Your task to perform on an android device: open sync settings in chrome Image 0: 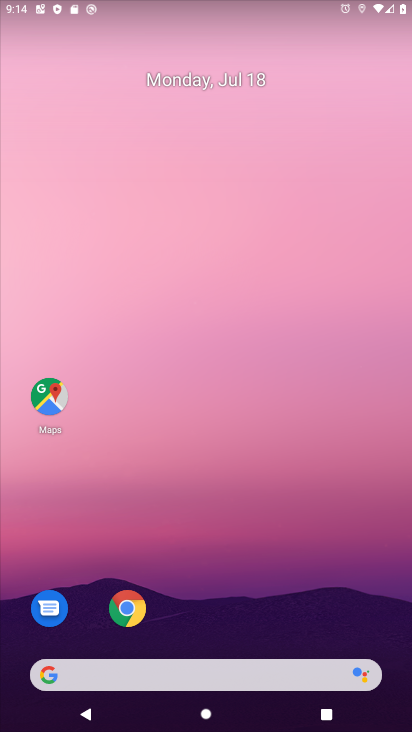
Step 0: click (125, 605)
Your task to perform on an android device: open sync settings in chrome Image 1: 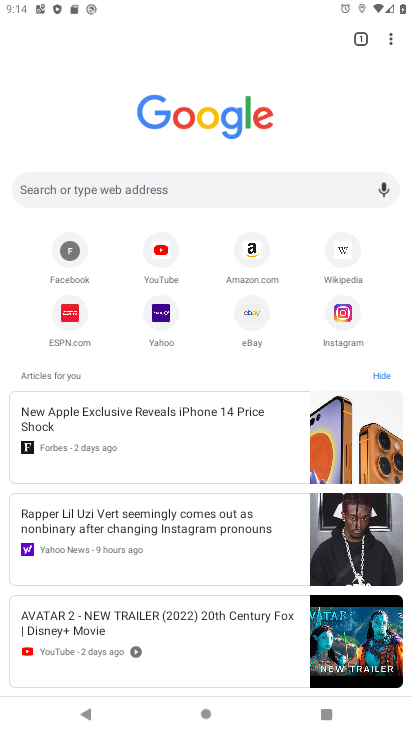
Step 1: click (390, 38)
Your task to perform on an android device: open sync settings in chrome Image 2: 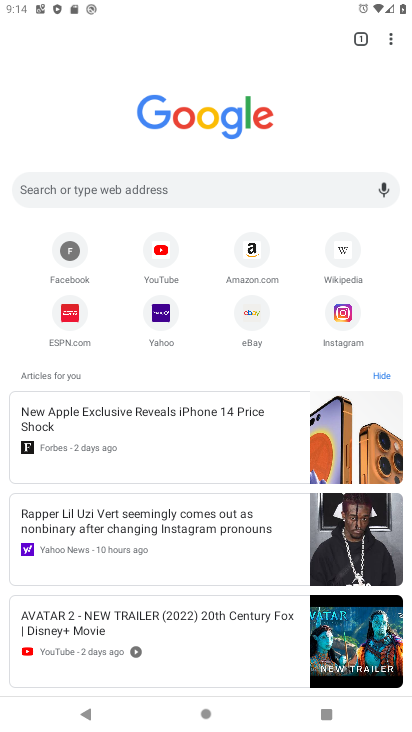
Step 2: click (387, 35)
Your task to perform on an android device: open sync settings in chrome Image 3: 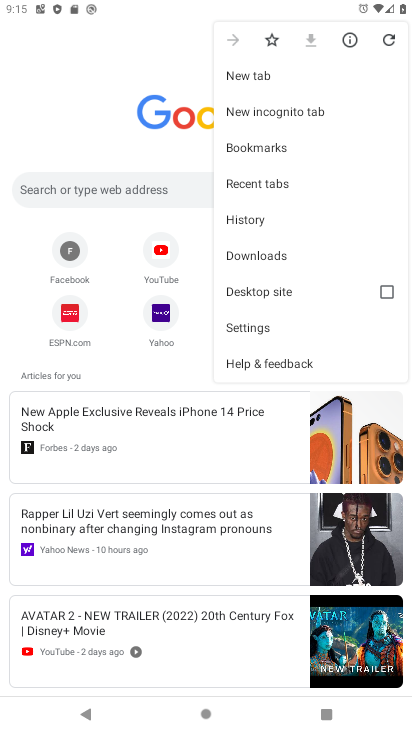
Step 3: click (248, 328)
Your task to perform on an android device: open sync settings in chrome Image 4: 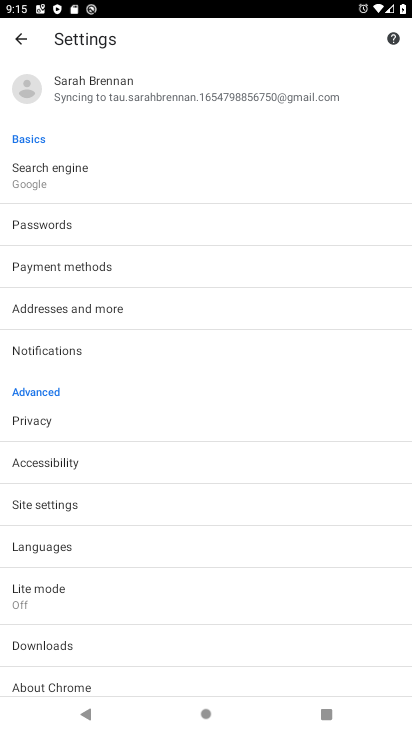
Step 4: click (53, 505)
Your task to perform on an android device: open sync settings in chrome Image 5: 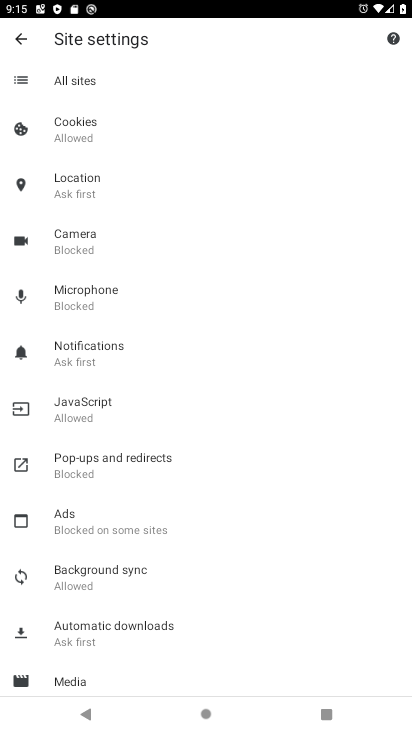
Step 5: drag from (220, 647) to (256, 21)
Your task to perform on an android device: open sync settings in chrome Image 6: 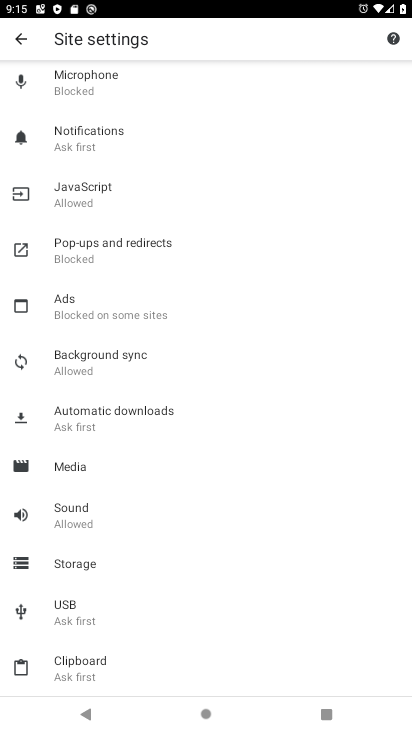
Step 6: drag from (282, 202) to (249, 498)
Your task to perform on an android device: open sync settings in chrome Image 7: 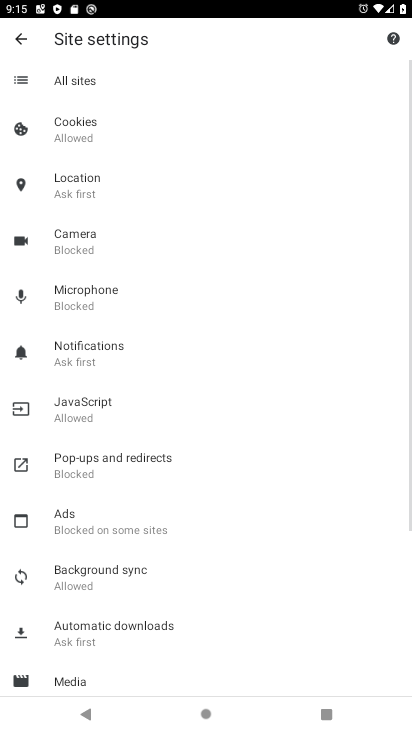
Step 7: drag from (210, 114) to (199, 418)
Your task to perform on an android device: open sync settings in chrome Image 8: 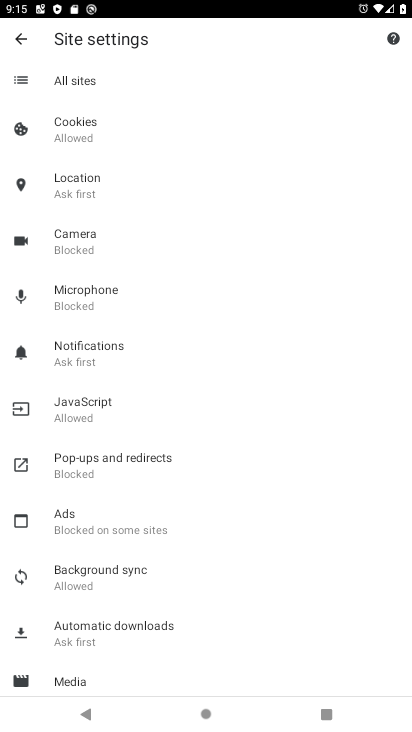
Step 8: drag from (156, 664) to (266, 94)
Your task to perform on an android device: open sync settings in chrome Image 9: 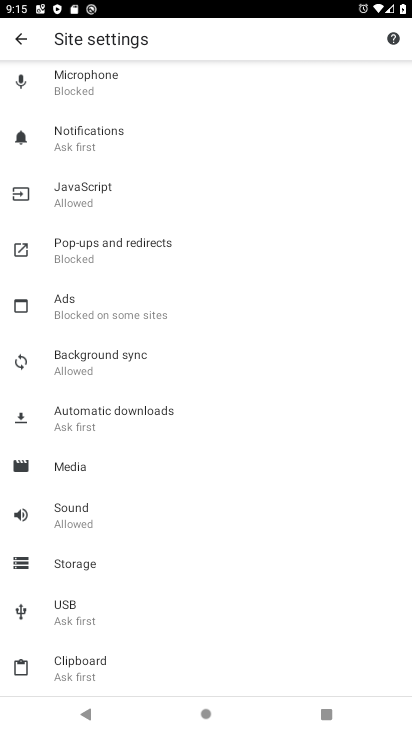
Step 9: click (106, 358)
Your task to perform on an android device: open sync settings in chrome Image 10: 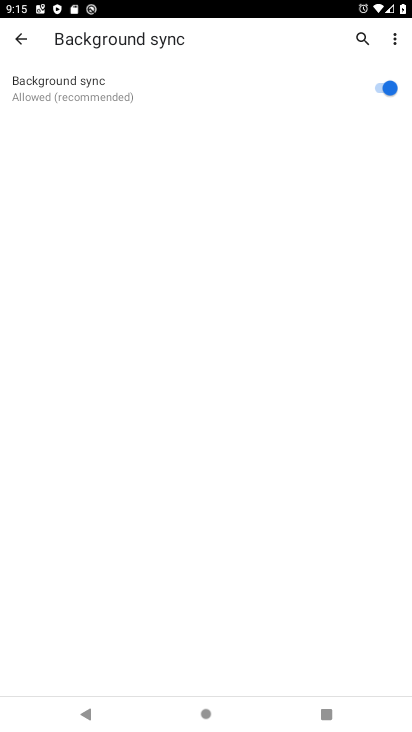
Step 10: task complete